Your task to perform on an android device: Open calendar and show me the second week of next month Image 0: 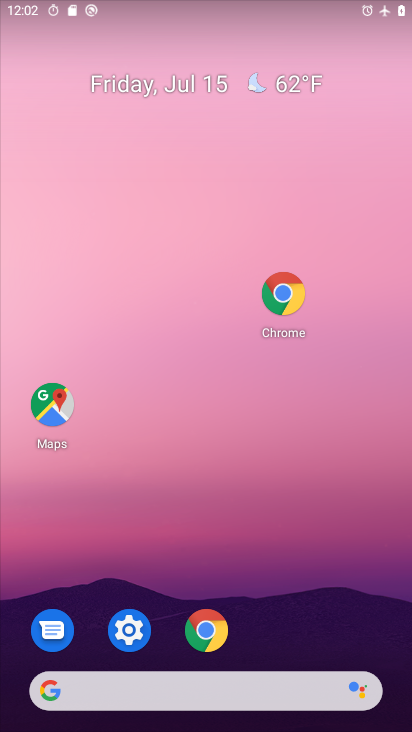
Step 0: click (183, 211)
Your task to perform on an android device: Open calendar and show me the second week of next month Image 1: 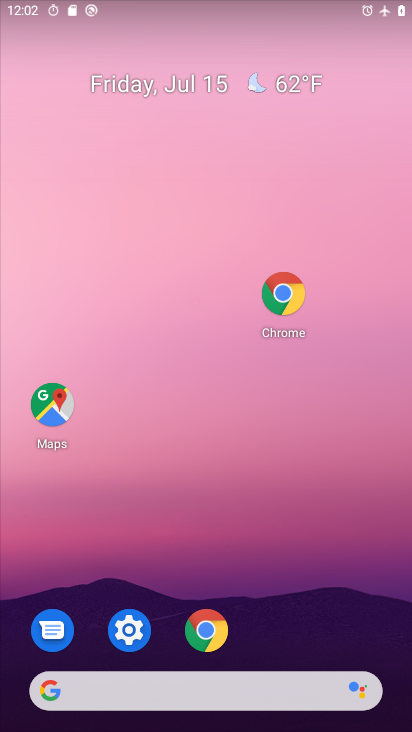
Step 1: drag from (246, 675) to (220, 210)
Your task to perform on an android device: Open calendar and show me the second week of next month Image 2: 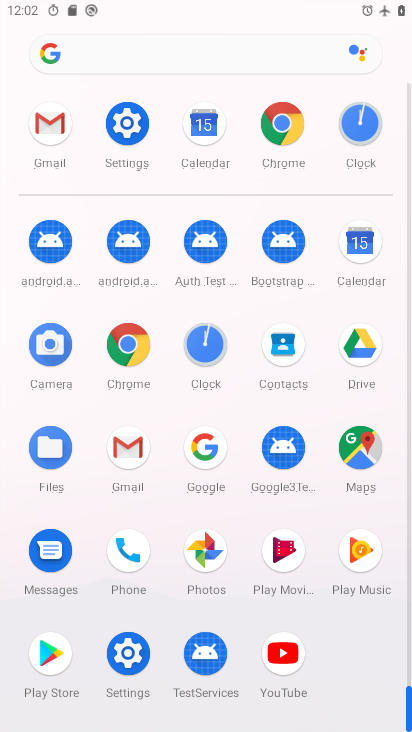
Step 2: click (360, 244)
Your task to perform on an android device: Open calendar and show me the second week of next month Image 3: 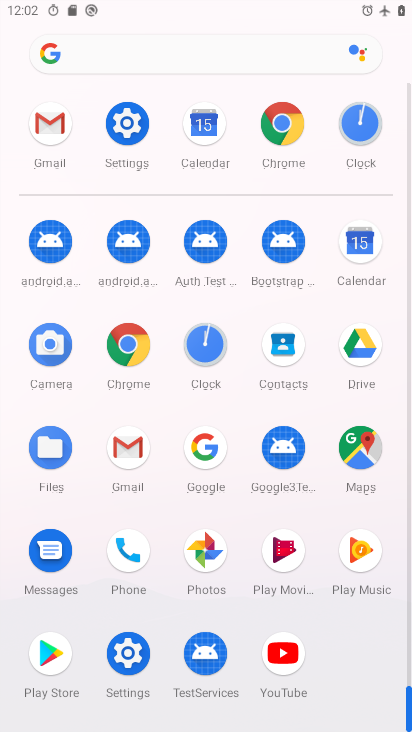
Step 3: click (360, 244)
Your task to perform on an android device: Open calendar and show me the second week of next month Image 4: 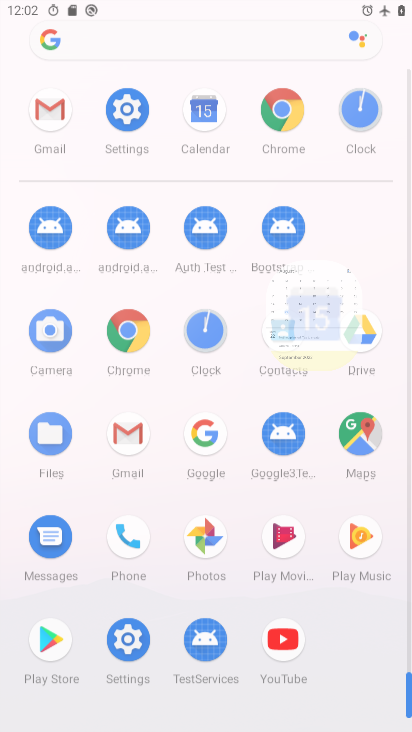
Step 4: click (359, 243)
Your task to perform on an android device: Open calendar and show me the second week of next month Image 5: 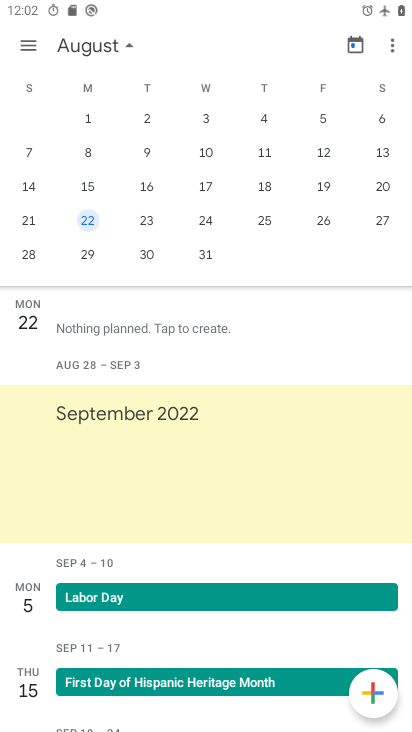
Step 5: drag from (285, 184) to (8, 192)
Your task to perform on an android device: Open calendar and show me the second week of next month Image 6: 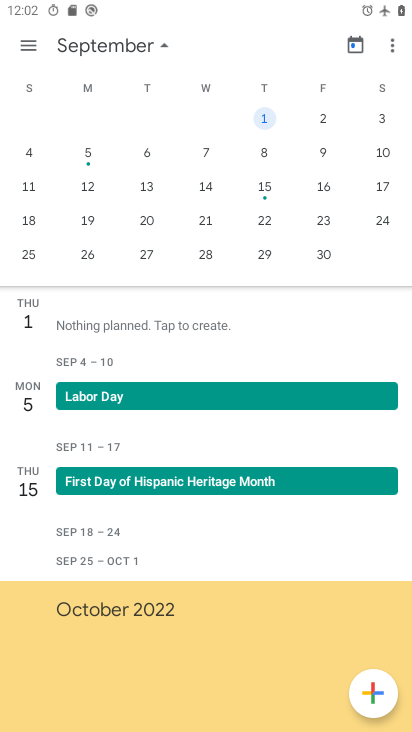
Step 6: drag from (25, 210) to (397, 255)
Your task to perform on an android device: Open calendar and show me the second week of next month Image 7: 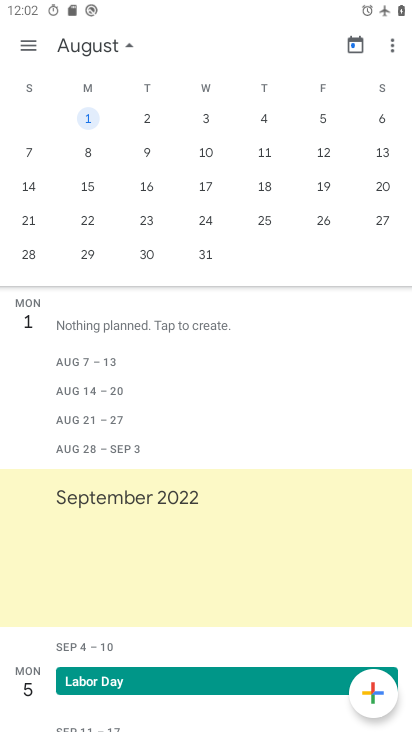
Step 7: click (154, 145)
Your task to perform on an android device: Open calendar and show me the second week of next month Image 8: 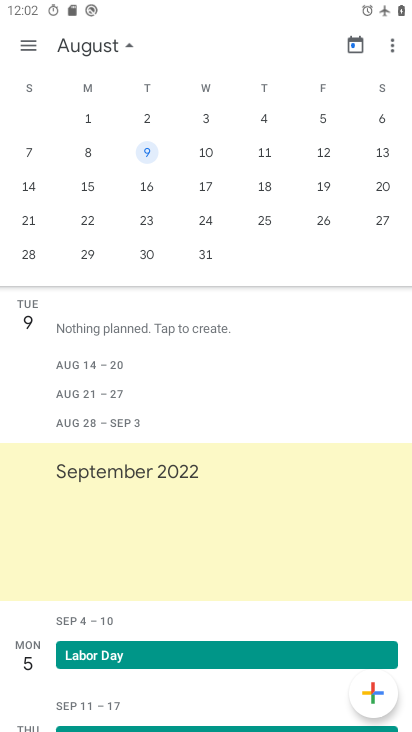
Step 8: task complete